Your task to perform on an android device: Open calendar and show me the fourth week of next month Image 0: 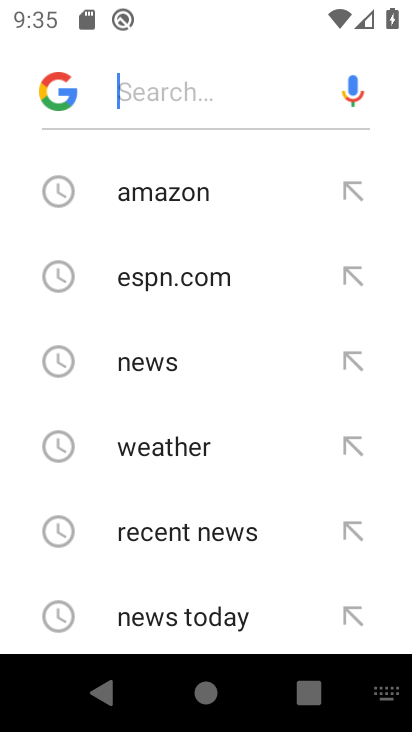
Step 0: press home button
Your task to perform on an android device: Open calendar and show me the fourth week of next month Image 1: 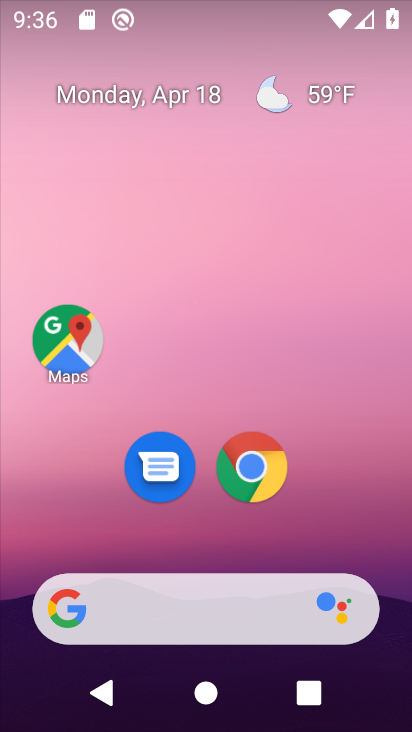
Step 1: drag from (181, 503) to (269, 39)
Your task to perform on an android device: Open calendar and show me the fourth week of next month Image 2: 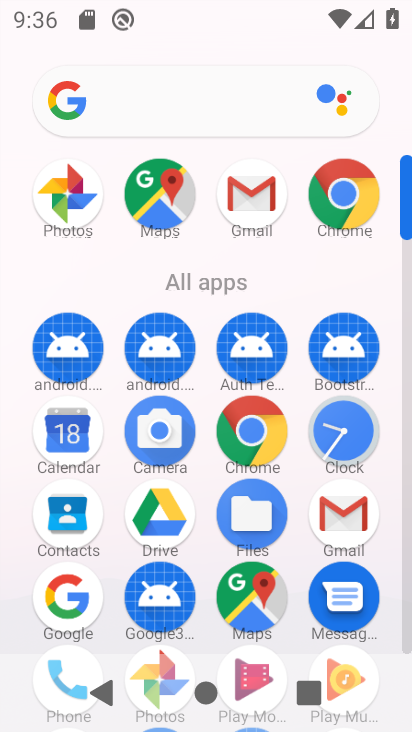
Step 2: click (68, 446)
Your task to perform on an android device: Open calendar and show me the fourth week of next month Image 3: 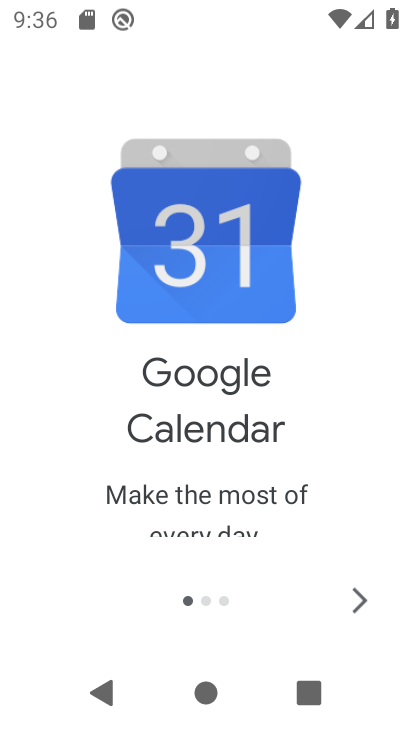
Step 3: click (362, 604)
Your task to perform on an android device: Open calendar and show me the fourth week of next month Image 4: 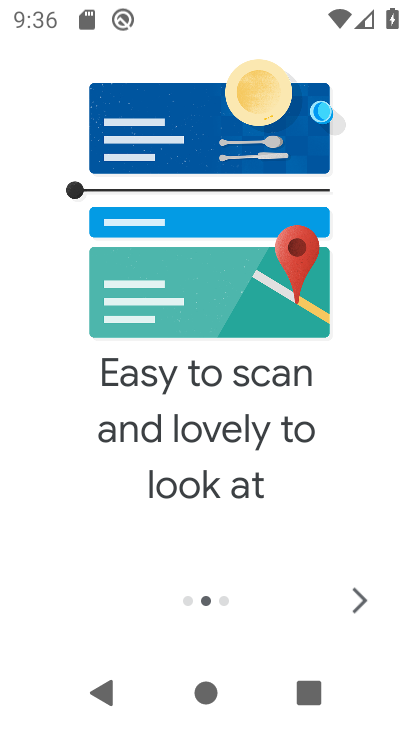
Step 4: click (362, 604)
Your task to perform on an android device: Open calendar and show me the fourth week of next month Image 5: 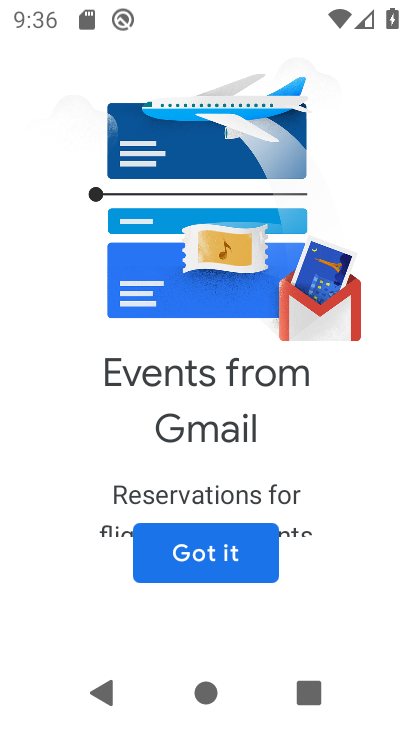
Step 5: click (248, 555)
Your task to perform on an android device: Open calendar and show me the fourth week of next month Image 6: 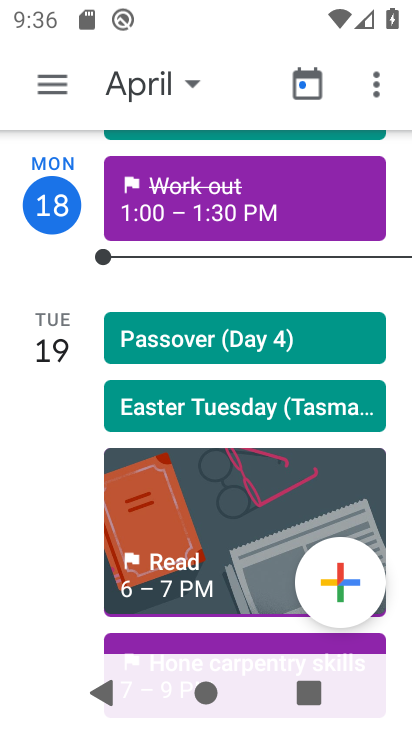
Step 6: click (160, 77)
Your task to perform on an android device: Open calendar and show me the fourth week of next month Image 7: 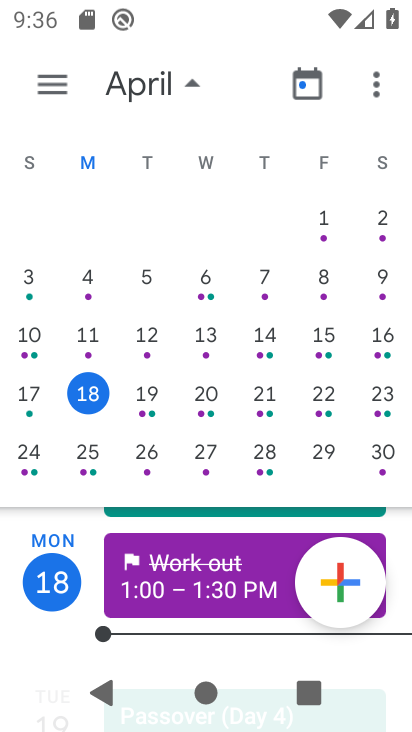
Step 7: drag from (314, 362) to (126, 375)
Your task to perform on an android device: Open calendar and show me the fourth week of next month Image 8: 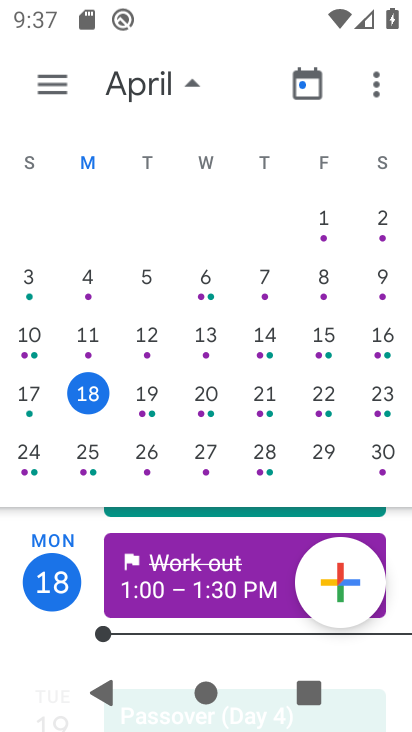
Step 8: drag from (375, 401) to (74, 407)
Your task to perform on an android device: Open calendar and show me the fourth week of next month Image 9: 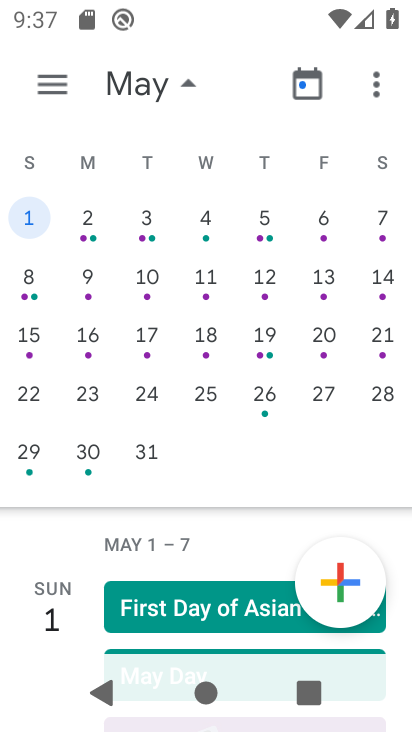
Step 9: click (82, 394)
Your task to perform on an android device: Open calendar and show me the fourth week of next month Image 10: 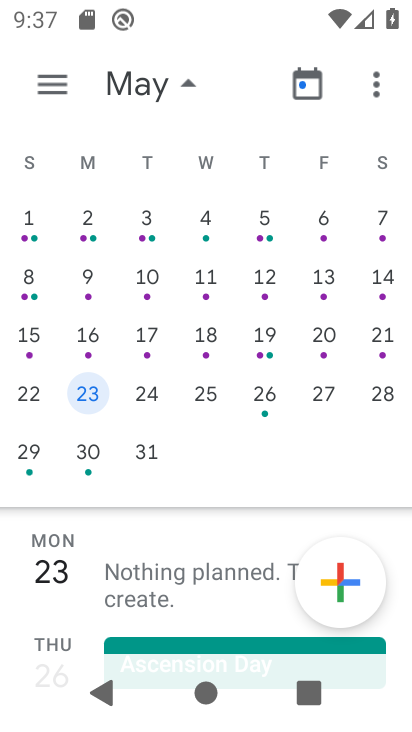
Step 10: task complete